Your task to perform on an android device: Go to settings Image 0: 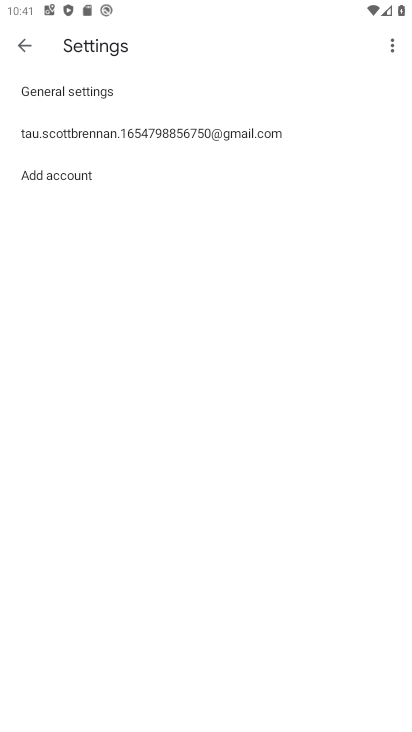
Step 0: press home button
Your task to perform on an android device: Go to settings Image 1: 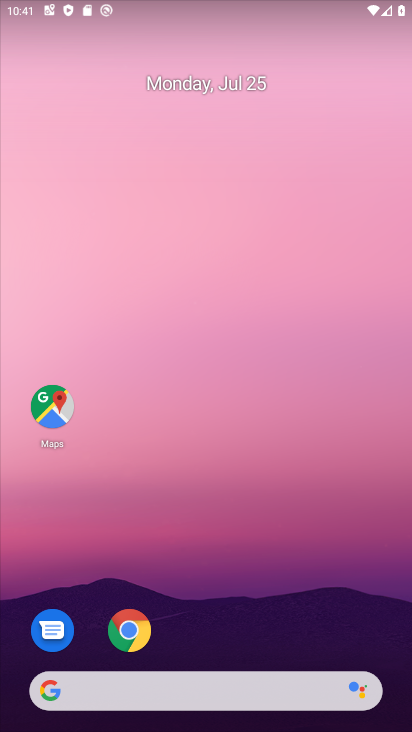
Step 1: drag from (320, 274) to (357, 90)
Your task to perform on an android device: Go to settings Image 2: 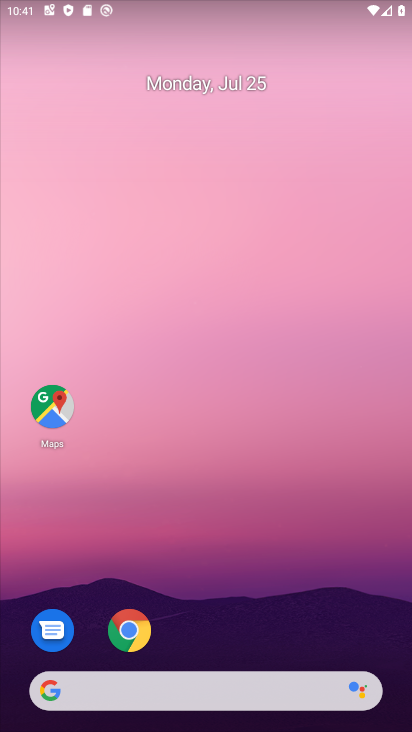
Step 2: drag from (365, 608) to (385, 119)
Your task to perform on an android device: Go to settings Image 3: 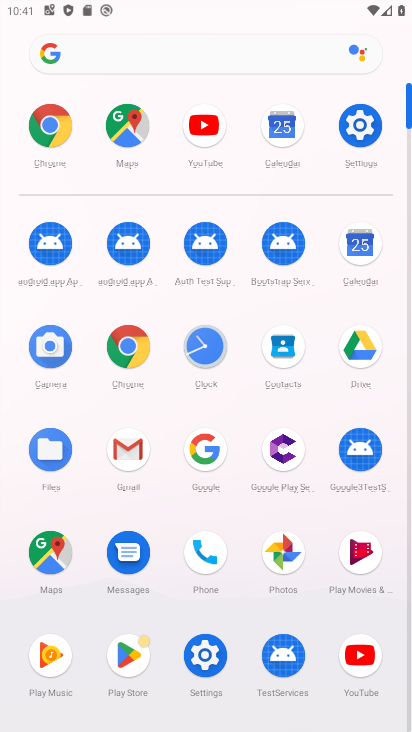
Step 3: click (365, 134)
Your task to perform on an android device: Go to settings Image 4: 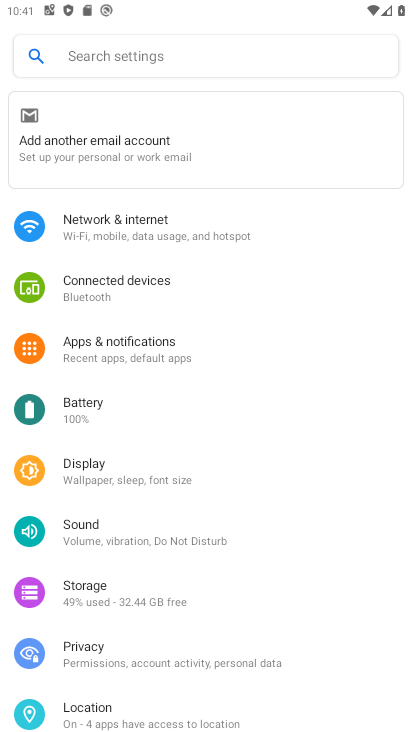
Step 4: task complete